Your task to perform on an android device: delete browsing data in the chrome app Image 0: 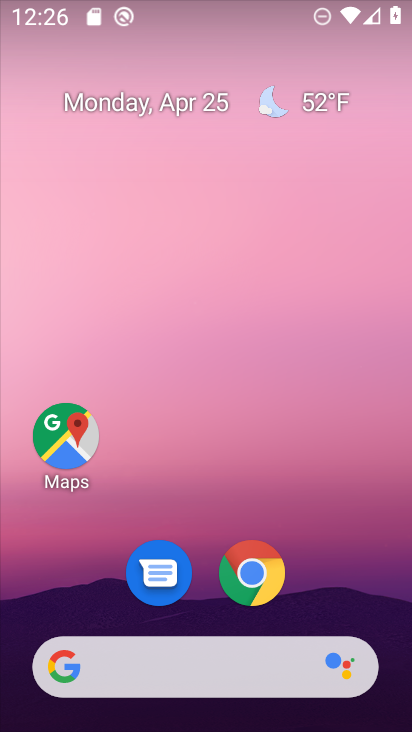
Step 0: click (253, 572)
Your task to perform on an android device: delete browsing data in the chrome app Image 1: 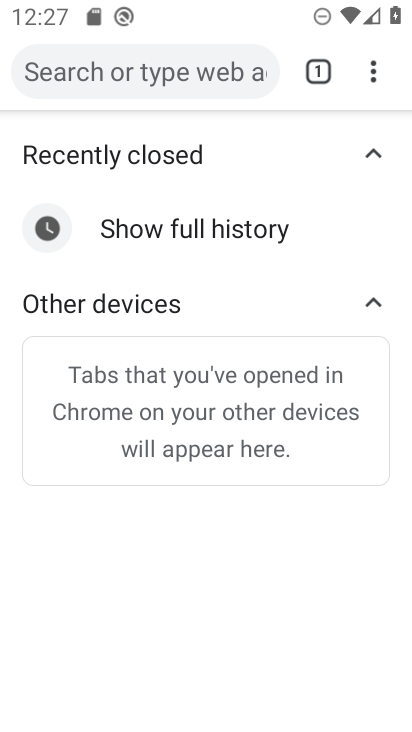
Step 1: task complete